Your task to perform on an android device: Open Google Image 0: 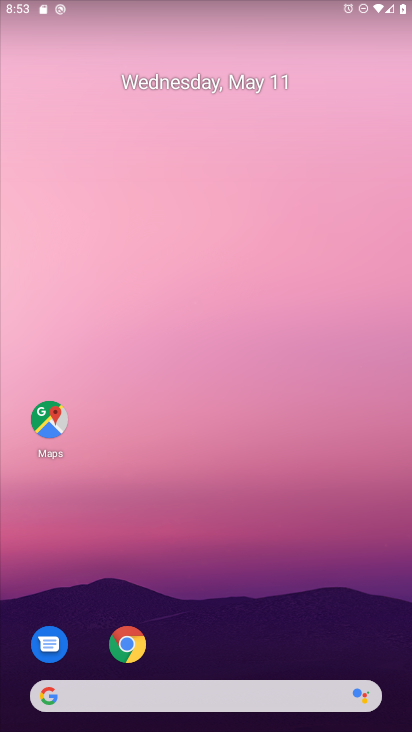
Step 0: click (197, 685)
Your task to perform on an android device: Open Google Image 1: 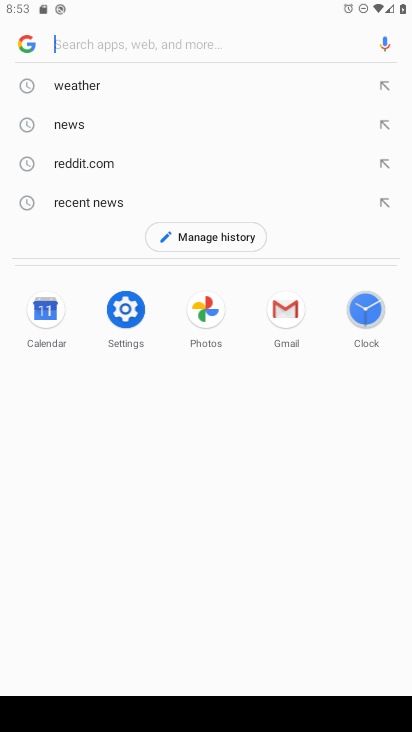
Step 1: task complete